Your task to perform on an android device: toggle priority inbox in the gmail app Image 0: 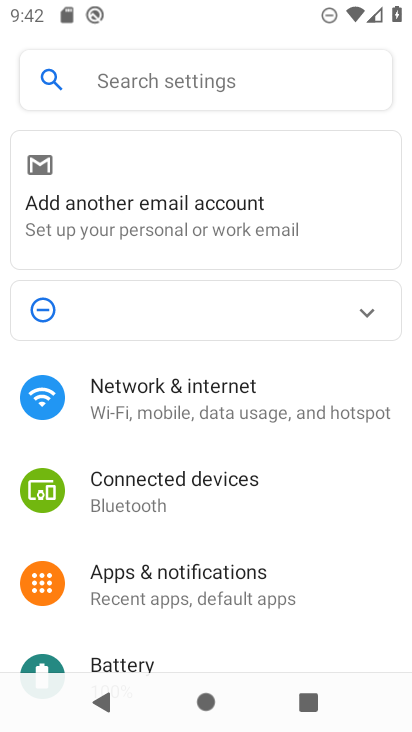
Step 0: press home button
Your task to perform on an android device: toggle priority inbox in the gmail app Image 1: 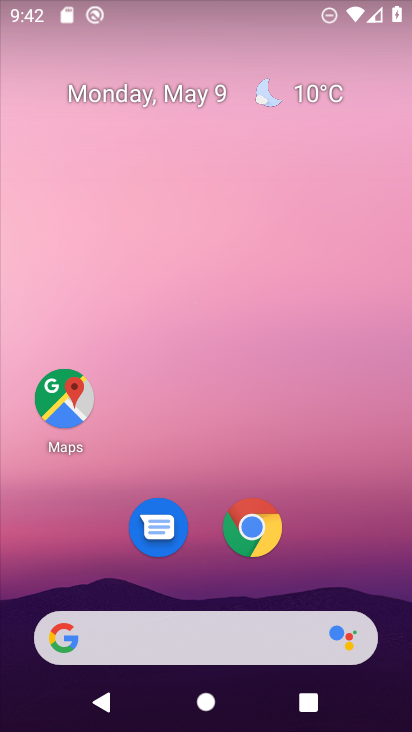
Step 1: drag from (249, 542) to (283, 132)
Your task to perform on an android device: toggle priority inbox in the gmail app Image 2: 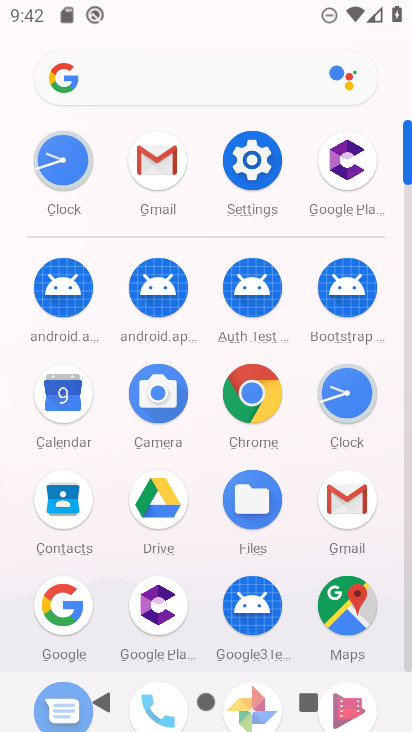
Step 2: click (338, 500)
Your task to perform on an android device: toggle priority inbox in the gmail app Image 3: 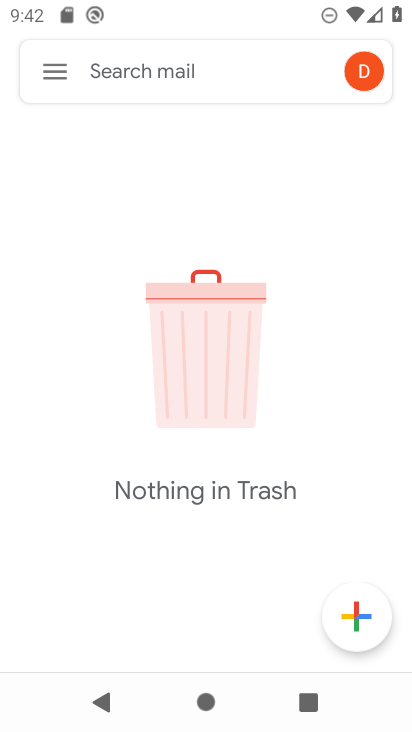
Step 3: click (36, 80)
Your task to perform on an android device: toggle priority inbox in the gmail app Image 4: 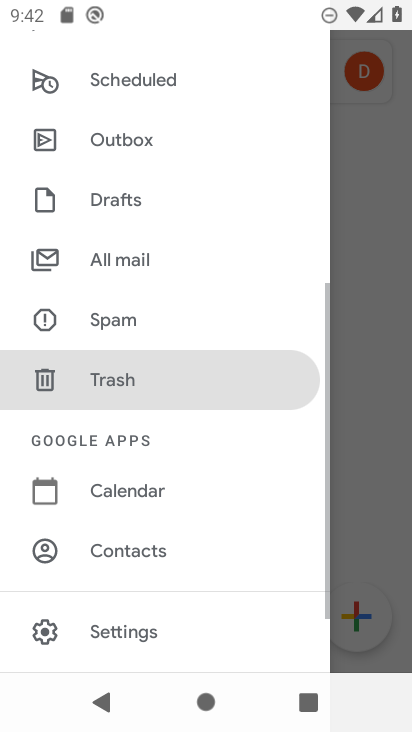
Step 4: click (112, 628)
Your task to perform on an android device: toggle priority inbox in the gmail app Image 5: 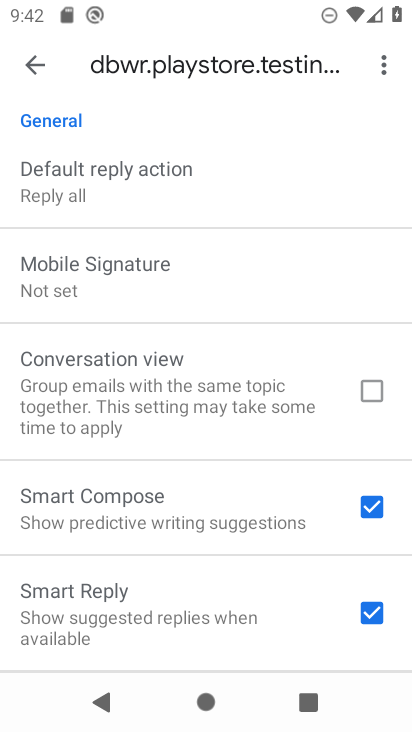
Step 5: drag from (175, 189) to (181, 346)
Your task to perform on an android device: toggle priority inbox in the gmail app Image 6: 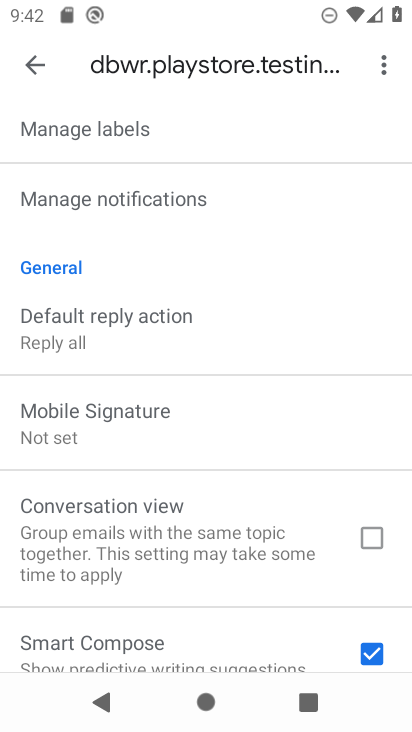
Step 6: drag from (203, 286) to (196, 663)
Your task to perform on an android device: toggle priority inbox in the gmail app Image 7: 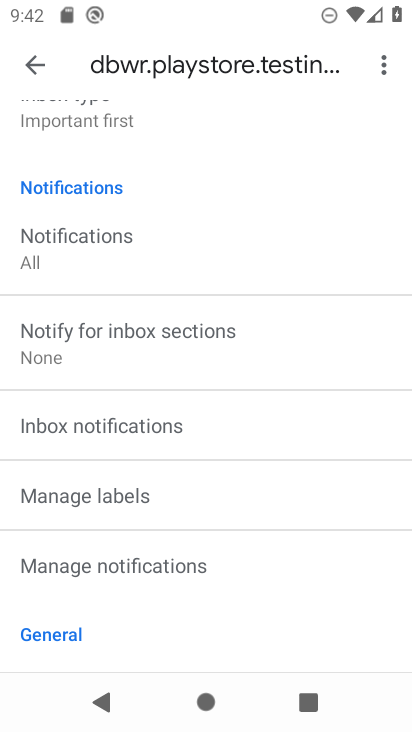
Step 7: drag from (167, 166) to (169, 473)
Your task to perform on an android device: toggle priority inbox in the gmail app Image 8: 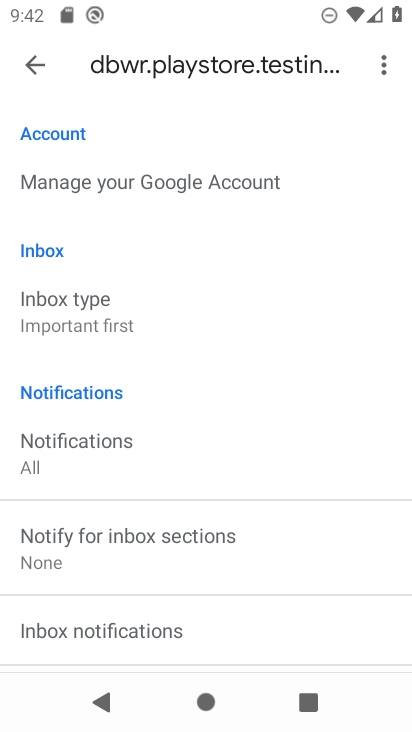
Step 8: click (126, 338)
Your task to perform on an android device: toggle priority inbox in the gmail app Image 9: 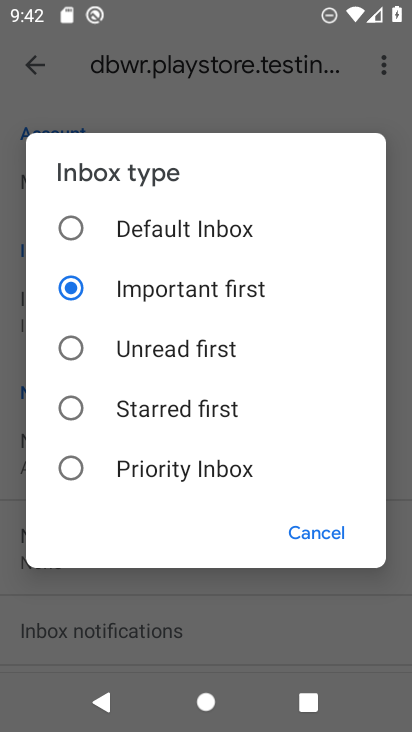
Step 9: click (105, 473)
Your task to perform on an android device: toggle priority inbox in the gmail app Image 10: 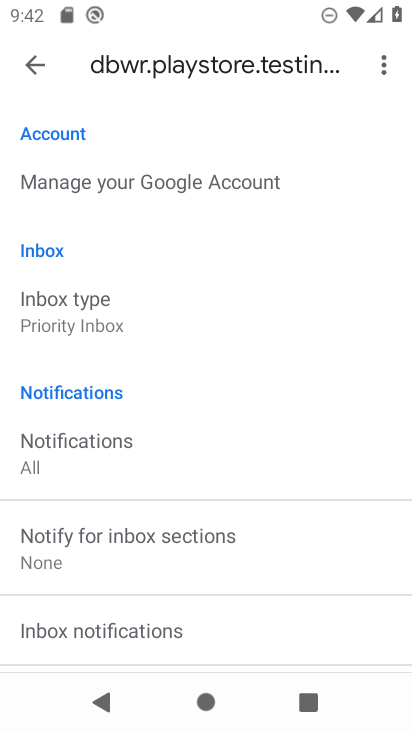
Step 10: task complete